Your task to perform on an android device: open chrome privacy settings Image 0: 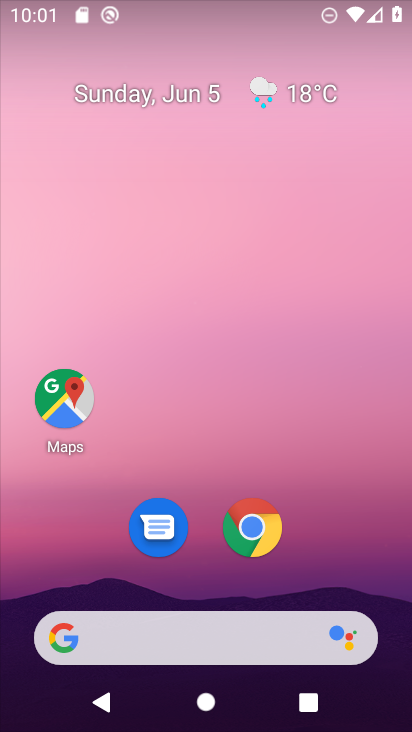
Step 0: click (269, 523)
Your task to perform on an android device: open chrome privacy settings Image 1: 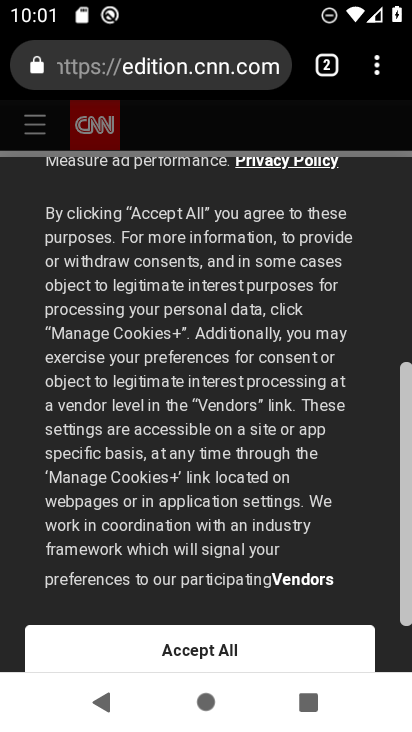
Step 1: drag from (378, 57) to (171, 572)
Your task to perform on an android device: open chrome privacy settings Image 2: 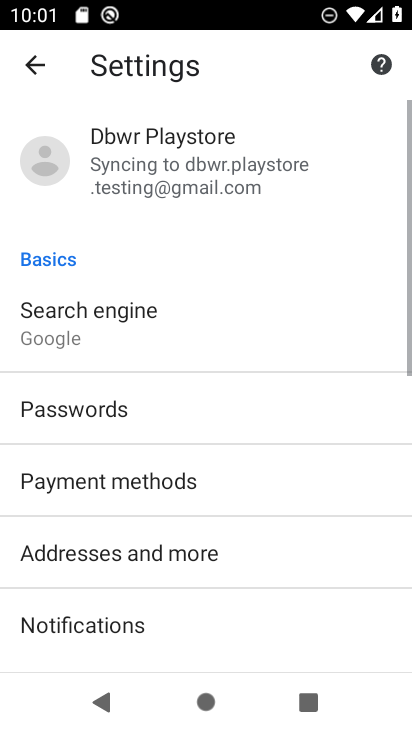
Step 2: drag from (137, 582) to (204, 37)
Your task to perform on an android device: open chrome privacy settings Image 3: 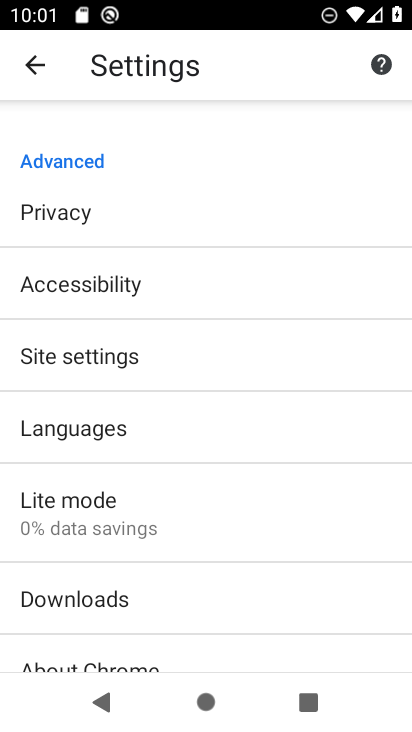
Step 3: click (88, 209)
Your task to perform on an android device: open chrome privacy settings Image 4: 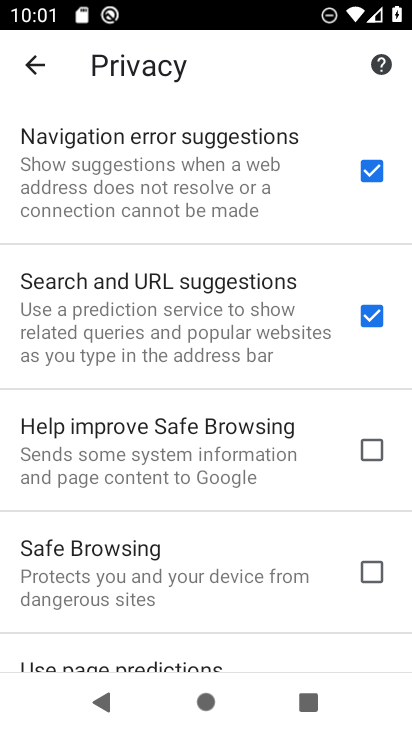
Step 4: task complete